Your task to perform on an android device: check data usage Image 0: 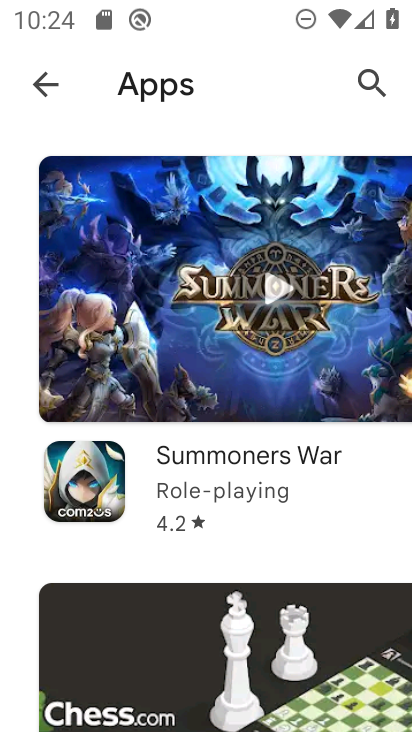
Step 0: press home button
Your task to perform on an android device: check data usage Image 1: 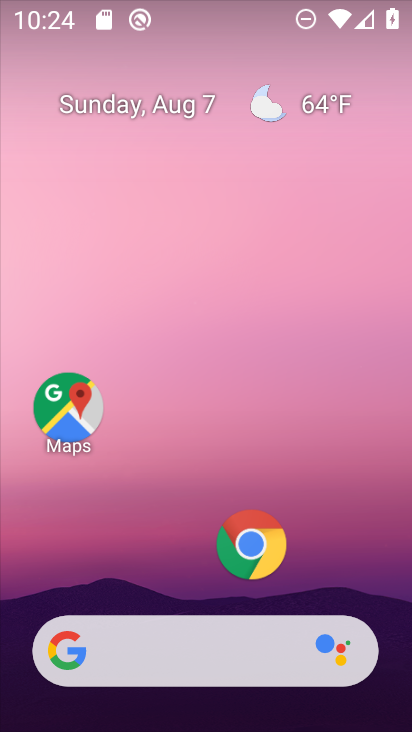
Step 1: drag from (204, 609) to (124, 13)
Your task to perform on an android device: check data usage Image 2: 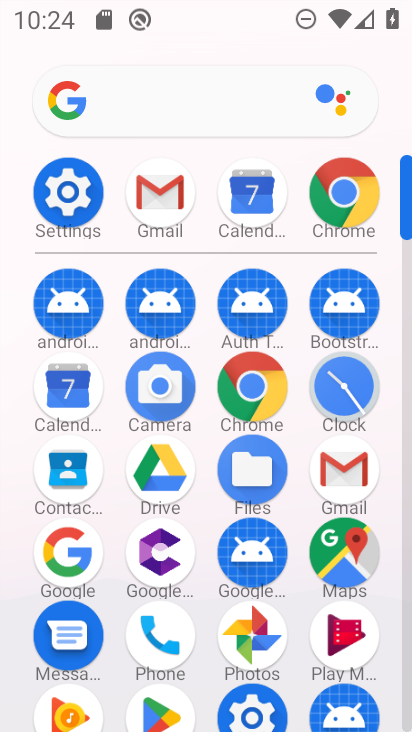
Step 2: click (54, 183)
Your task to perform on an android device: check data usage Image 3: 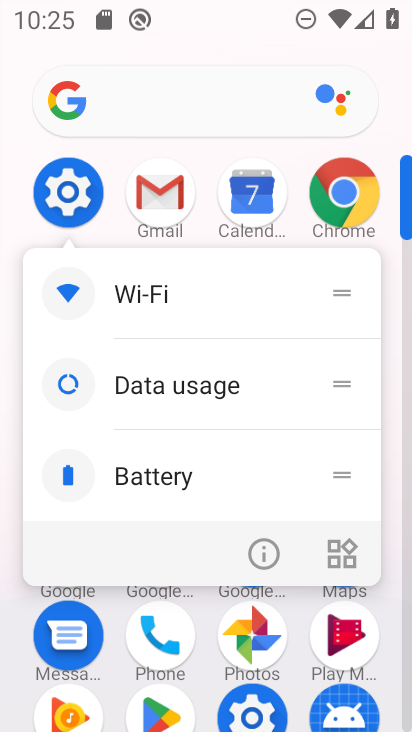
Step 3: click (54, 168)
Your task to perform on an android device: check data usage Image 4: 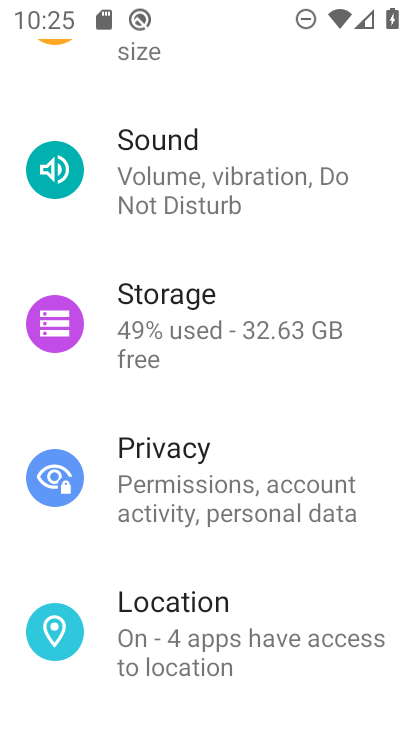
Step 4: drag from (254, 194) to (270, 731)
Your task to perform on an android device: check data usage Image 5: 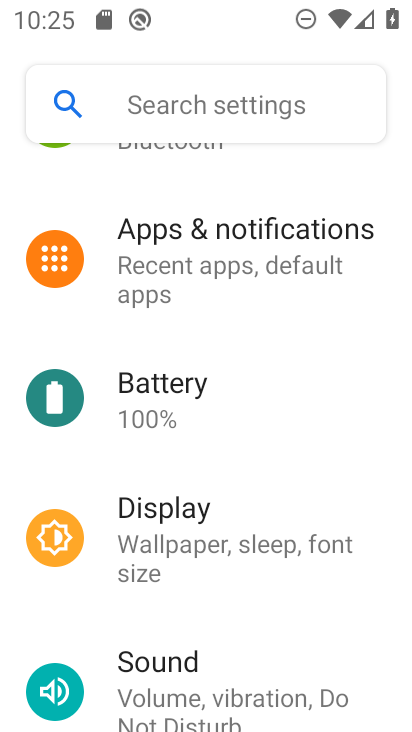
Step 5: drag from (226, 244) to (241, 728)
Your task to perform on an android device: check data usage Image 6: 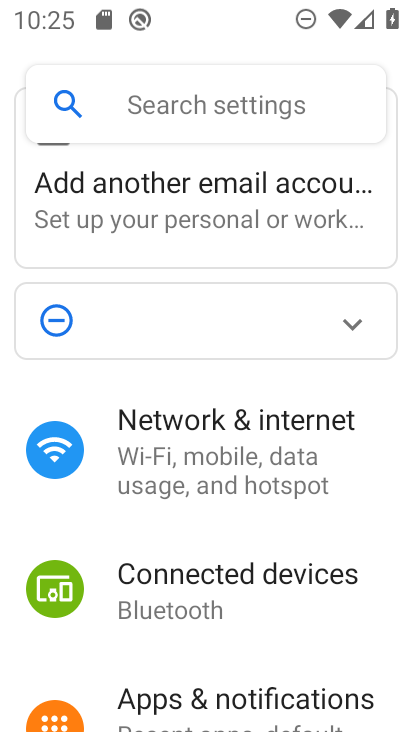
Step 6: click (238, 463)
Your task to perform on an android device: check data usage Image 7: 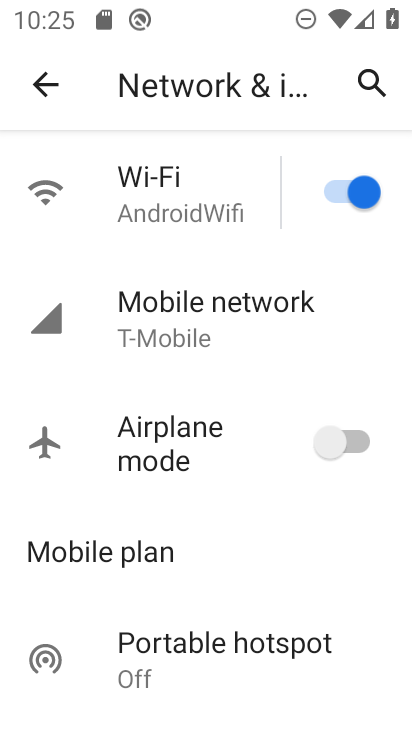
Step 7: click (239, 350)
Your task to perform on an android device: check data usage Image 8: 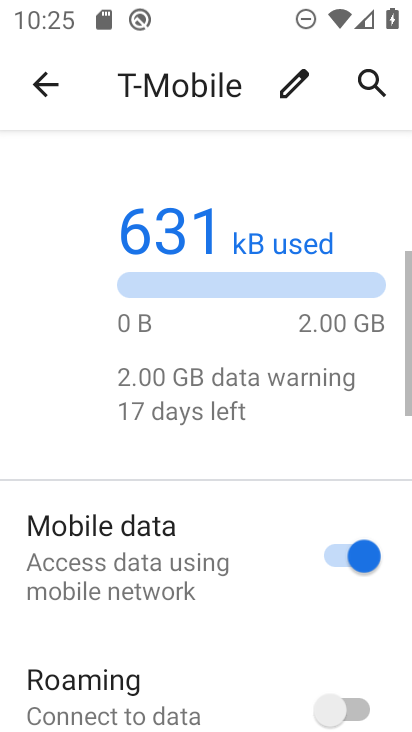
Step 8: task complete